Your task to perform on an android device: Open Yahoo.com Image 0: 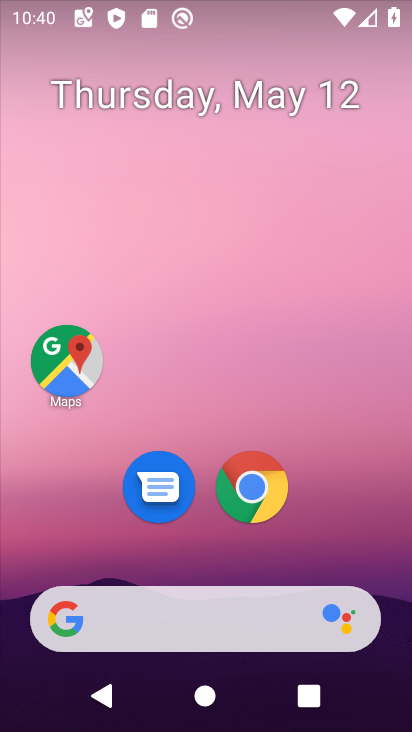
Step 0: click (256, 483)
Your task to perform on an android device: Open Yahoo.com Image 1: 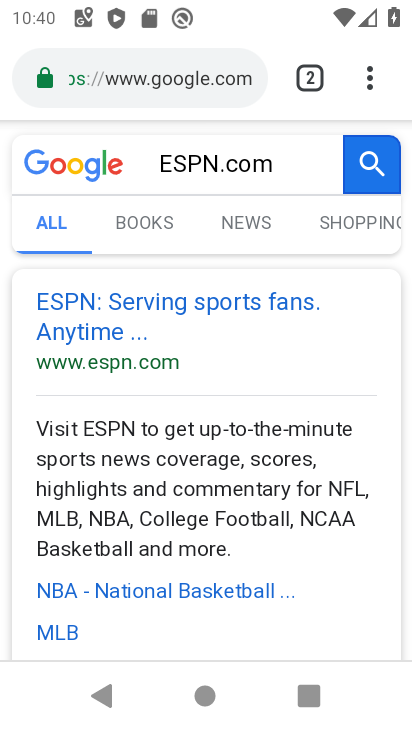
Step 1: click (304, 92)
Your task to perform on an android device: Open Yahoo.com Image 2: 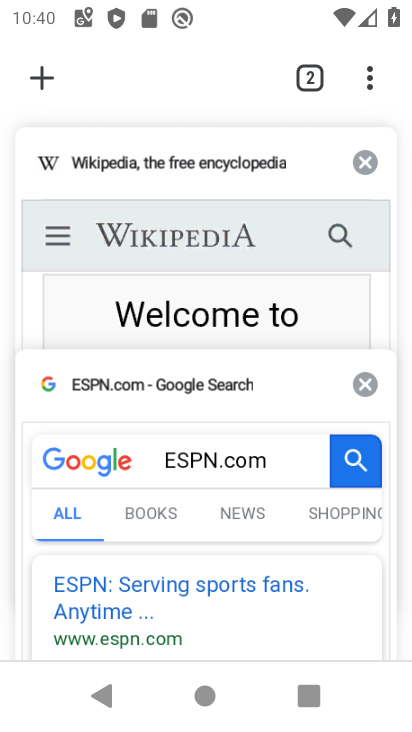
Step 2: click (364, 170)
Your task to perform on an android device: Open Yahoo.com Image 3: 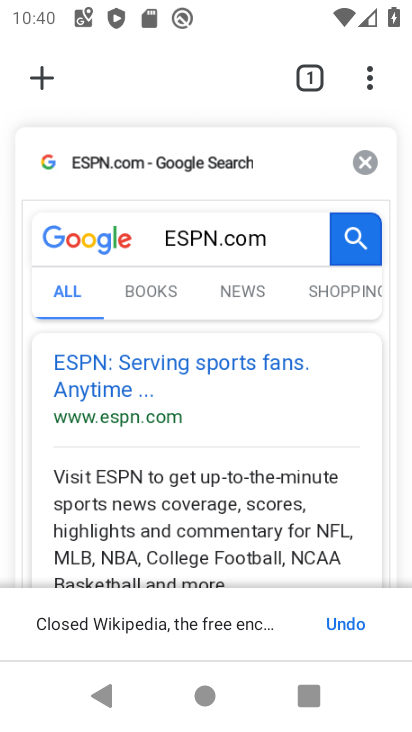
Step 3: click (364, 168)
Your task to perform on an android device: Open Yahoo.com Image 4: 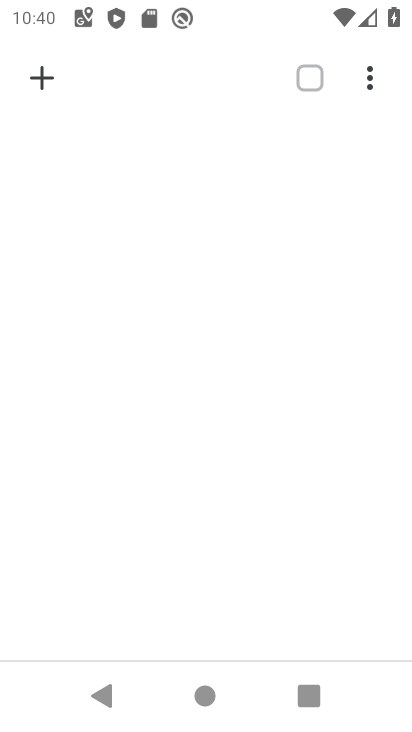
Step 4: click (43, 77)
Your task to perform on an android device: Open Yahoo.com Image 5: 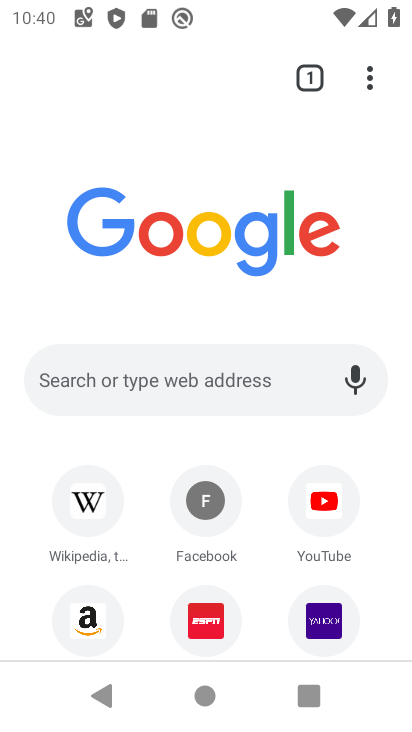
Step 5: drag from (72, 591) to (269, 258)
Your task to perform on an android device: Open Yahoo.com Image 6: 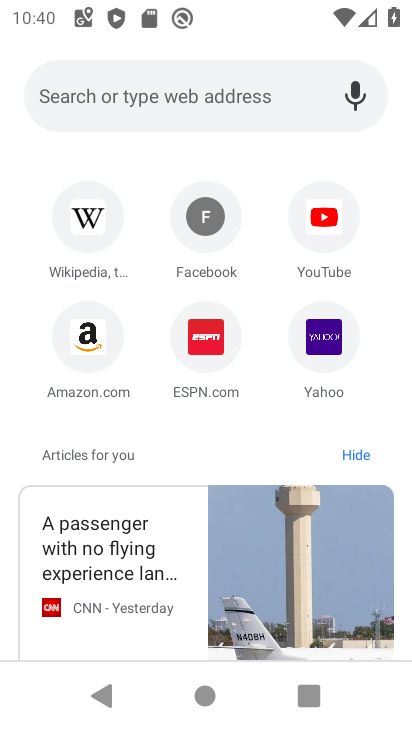
Step 6: click (339, 346)
Your task to perform on an android device: Open Yahoo.com Image 7: 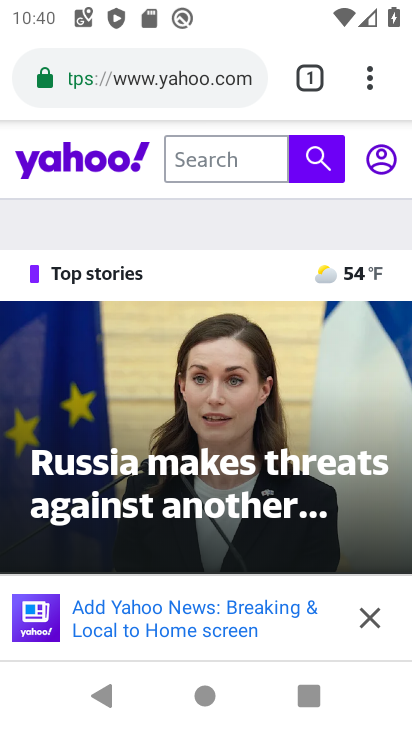
Step 7: task complete